Your task to perform on an android device: set an alarm Image 0: 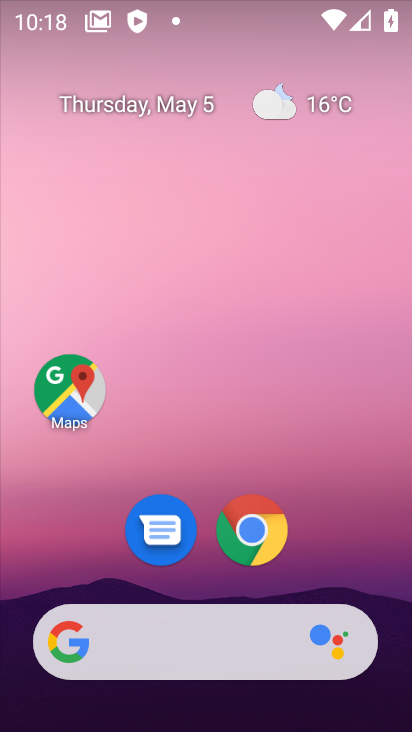
Step 0: drag from (325, 587) to (346, 130)
Your task to perform on an android device: set an alarm Image 1: 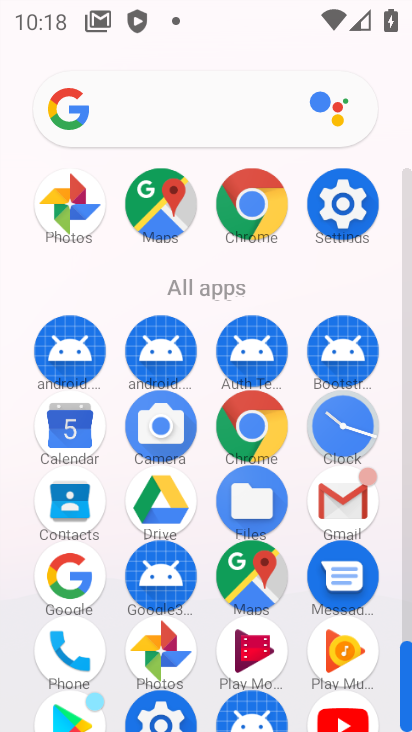
Step 1: click (325, 414)
Your task to perform on an android device: set an alarm Image 2: 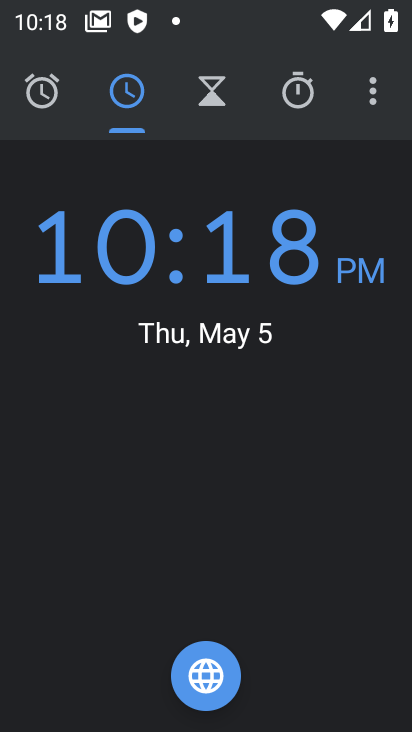
Step 2: click (31, 105)
Your task to perform on an android device: set an alarm Image 3: 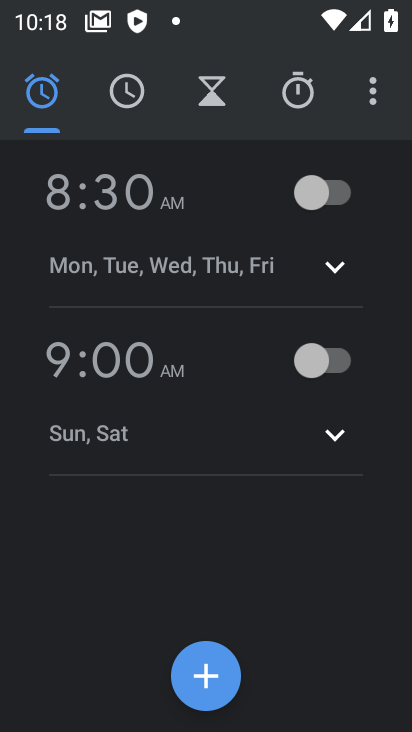
Step 3: click (314, 199)
Your task to perform on an android device: set an alarm Image 4: 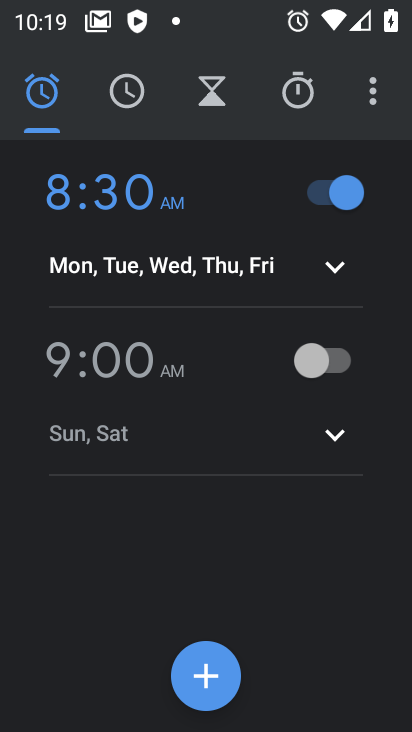
Step 4: task complete